Your task to perform on an android device: make emails show in primary in the gmail app Image 0: 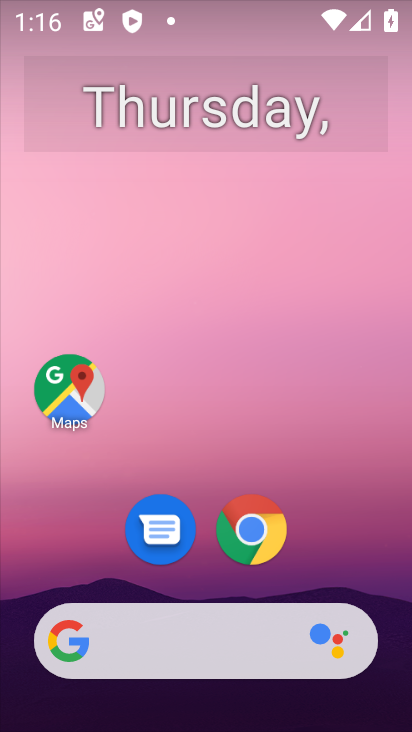
Step 0: drag from (391, 537) to (399, 78)
Your task to perform on an android device: make emails show in primary in the gmail app Image 1: 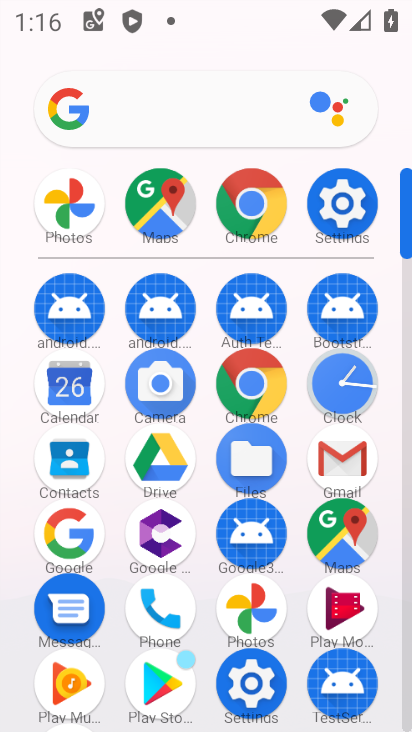
Step 1: click (342, 467)
Your task to perform on an android device: make emails show in primary in the gmail app Image 2: 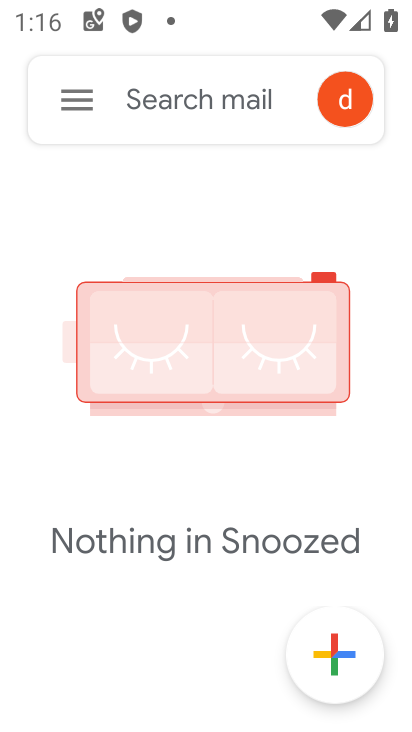
Step 2: click (74, 104)
Your task to perform on an android device: make emails show in primary in the gmail app Image 3: 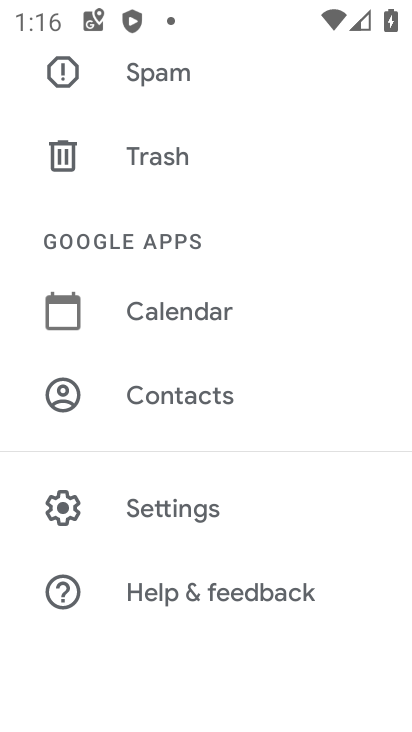
Step 3: drag from (234, 174) to (288, 679)
Your task to perform on an android device: make emails show in primary in the gmail app Image 4: 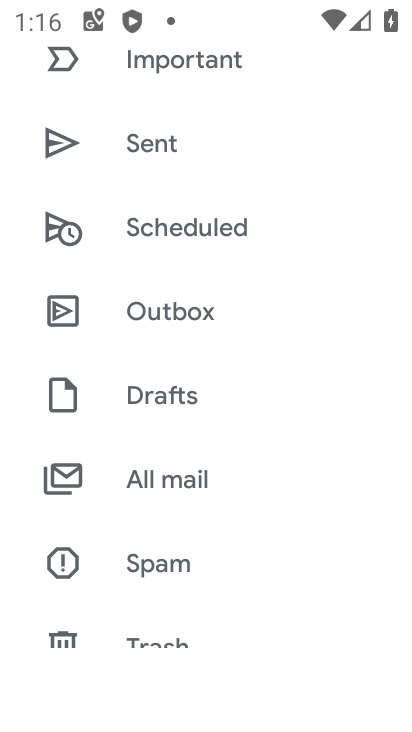
Step 4: drag from (241, 269) to (259, 654)
Your task to perform on an android device: make emails show in primary in the gmail app Image 5: 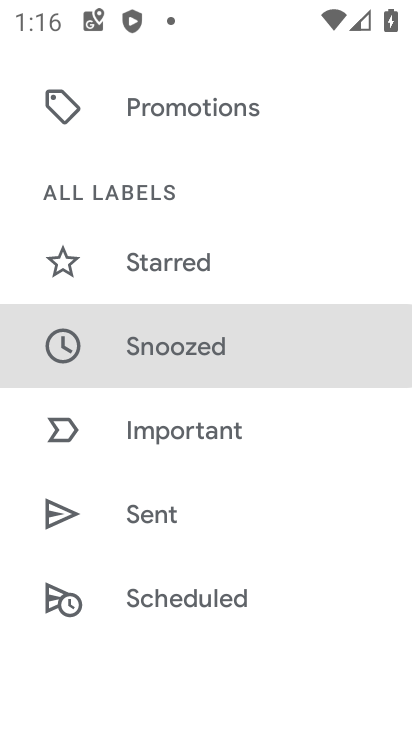
Step 5: drag from (259, 284) to (292, 601)
Your task to perform on an android device: make emails show in primary in the gmail app Image 6: 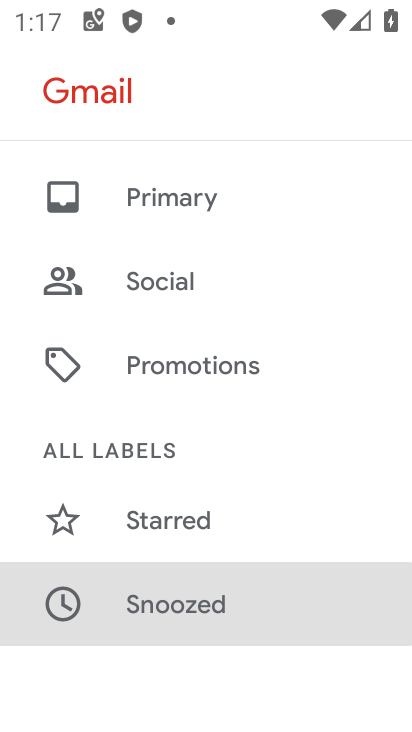
Step 6: click (225, 212)
Your task to perform on an android device: make emails show in primary in the gmail app Image 7: 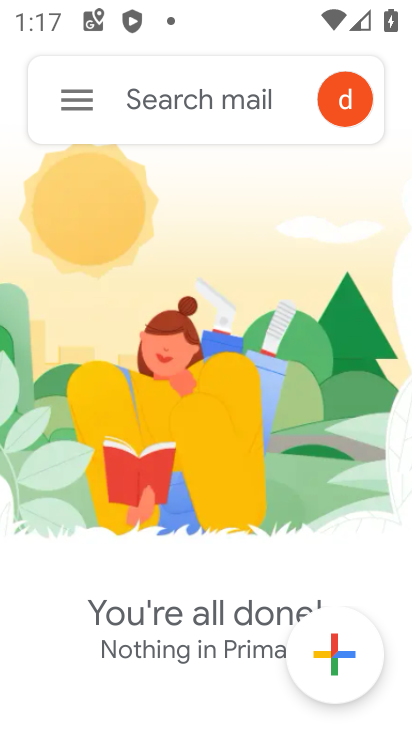
Step 7: task complete